Your task to perform on an android device: change keyboard looks Image 0: 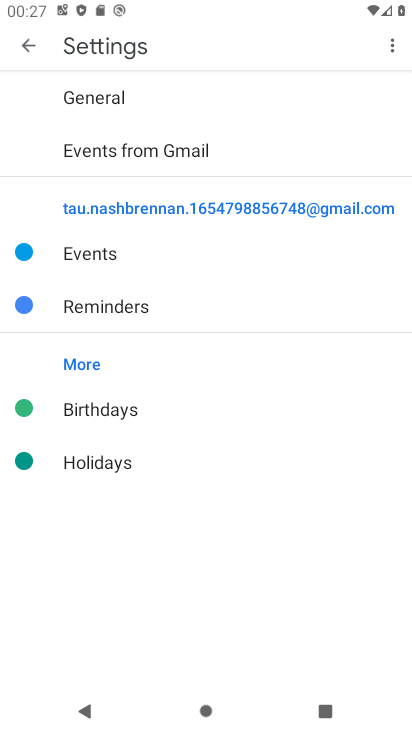
Step 0: press back button
Your task to perform on an android device: change keyboard looks Image 1: 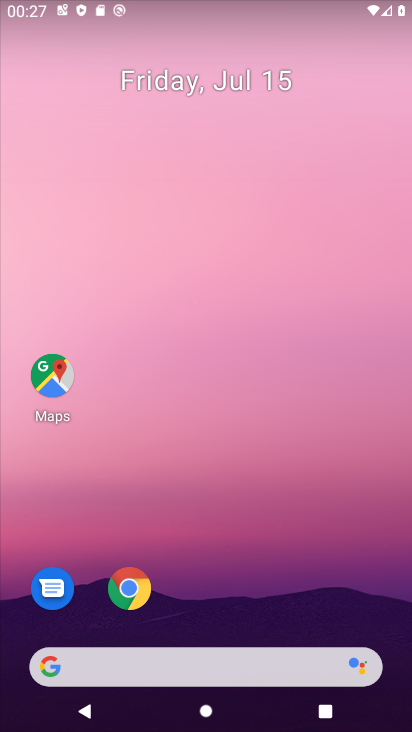
Step 1: drag from (273, 518) to (281, 3)
Your task to perform on an android device: change keyboard looks Image 2: 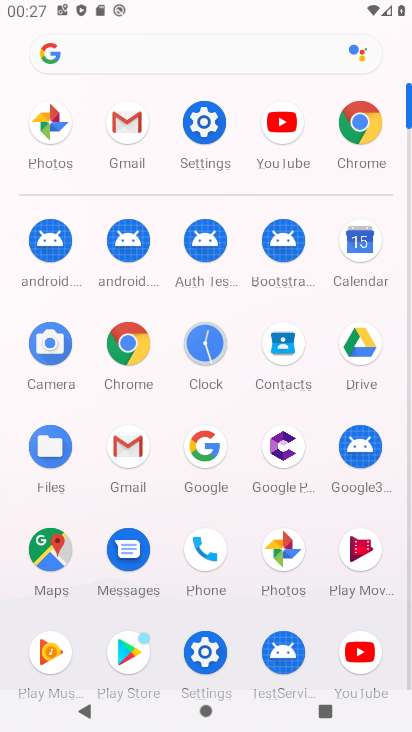
Step 2: click (198, 119)
Your task to perform on an android device: change keyboard looks Image 3: 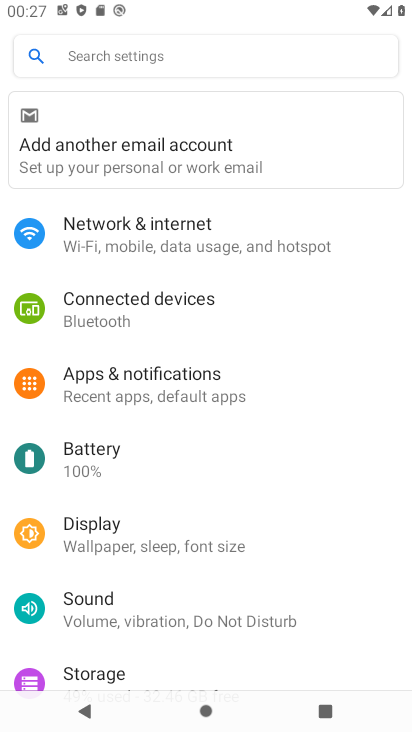
Step 3: click (149, 53)
Your task to perform on an android device: change keyboard looks Image 4: 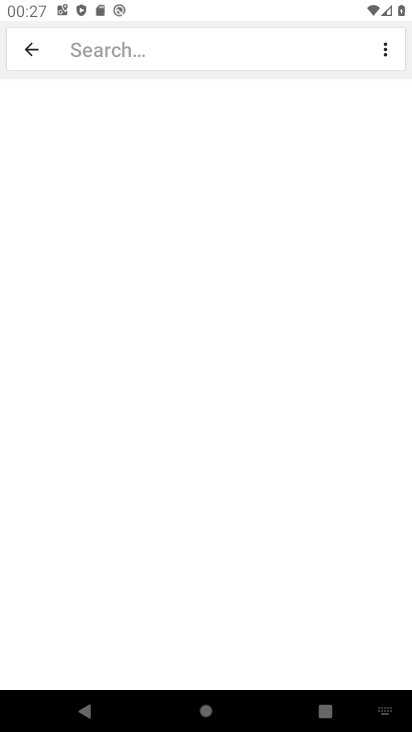
Step 4: click (30, 45)
Your task to perform on an android device: change keyboard looks Image 5: 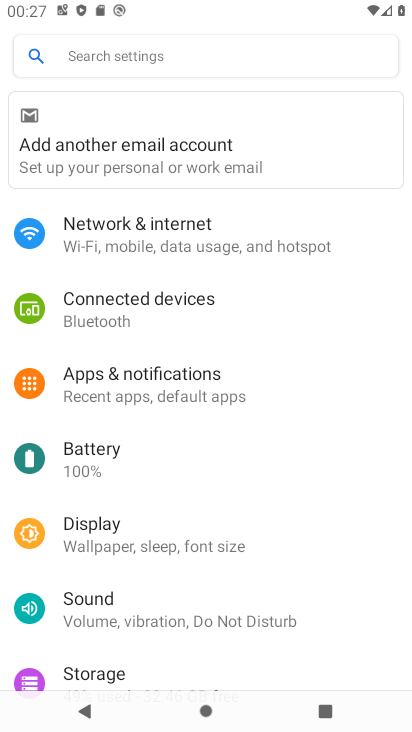
Step 5: drag from (149, 609) to (182, 6)
Your task to perform on an android device: change keyboard looks Image 6: 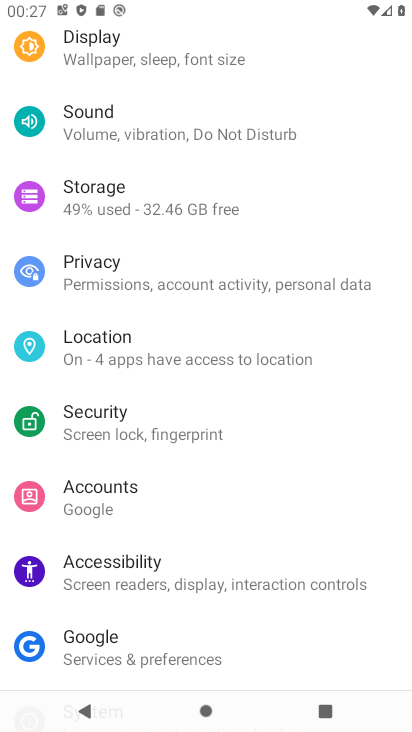
Step 6: drag from (158, 566) to (264, 26)
Your task to perform on an android device: change keyboard looks Image 7: 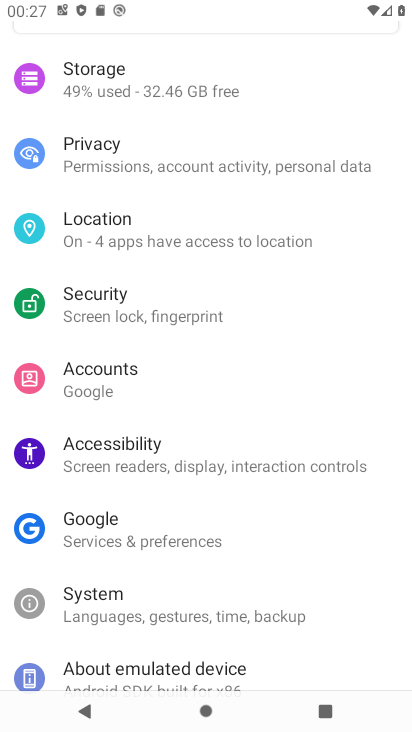
Step 7: click (105, 564)
Your task to perform on an android device: change keyboard looks Image 8: 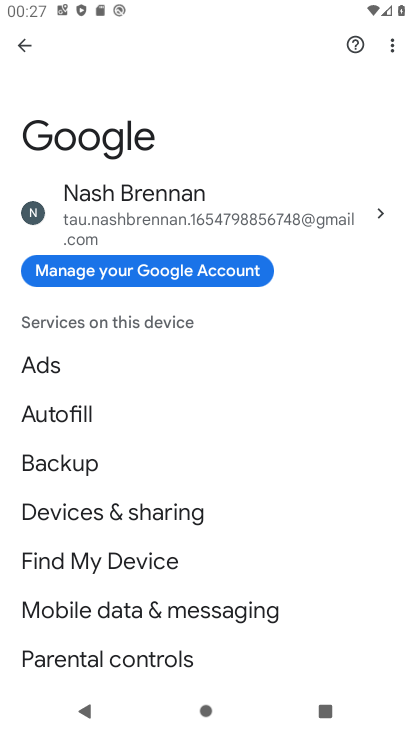
Step 8: click (22, 36)
Your task to perform on an android device: change keyboard looks Image 9: 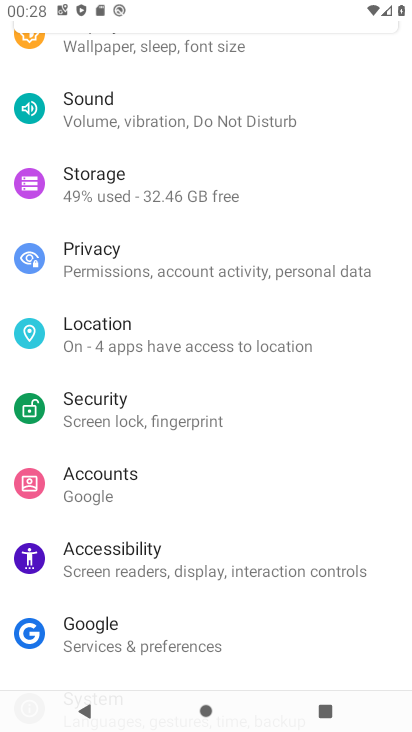
Step 9: drag from (134, 613) to (225, 26)
Your task to perform on an android device: change keyboard looks Image 10: 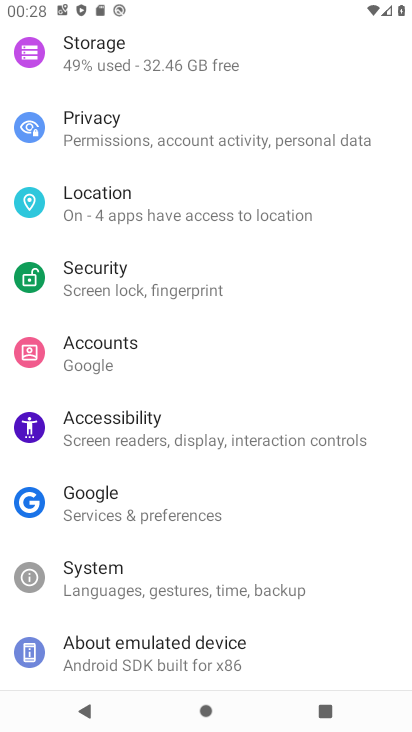
Step 10: click (138, 586)
Your task to perform on an android device: change keyboard looks Image 11: 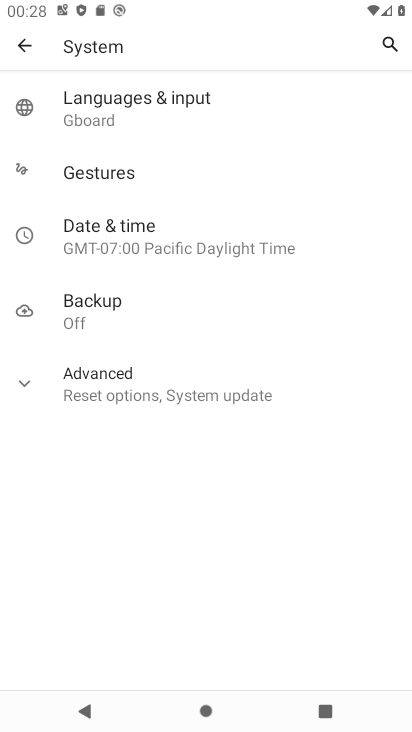
Step 11: click (132, 116)
Your task to perform on an android device: change keyboard looks Image 12: 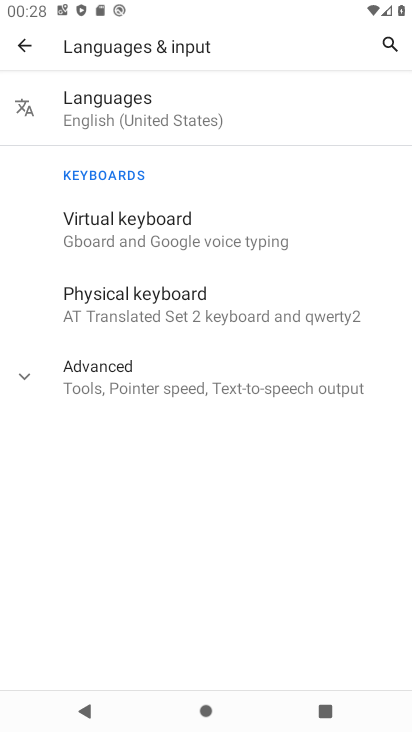
Step 12: click (116, 235)
Your task to perform on an android device: change keyboard looks Image 13: 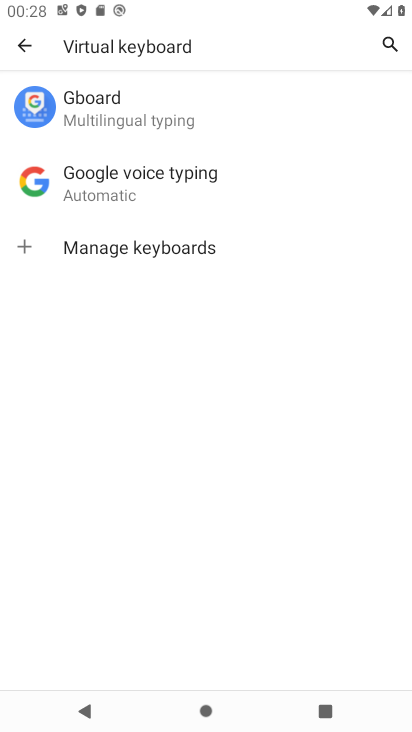
Step 13: click (116, 103)
Your task to perform on an android device: change keyboard looks Image 14: 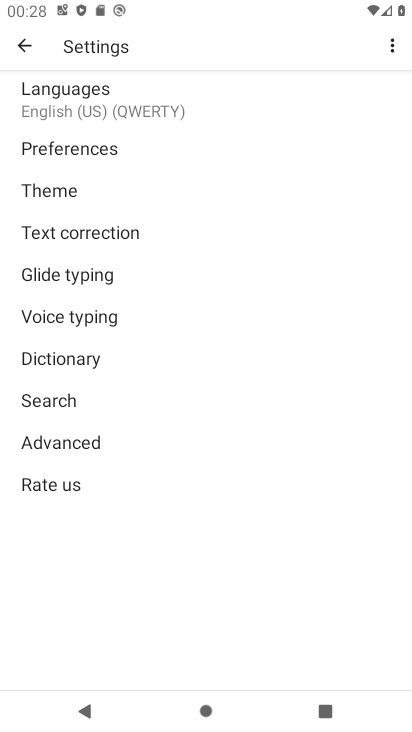
Step 14: click (71, 187)
Your task to perform on an android device: change keyboard looks Image 15: 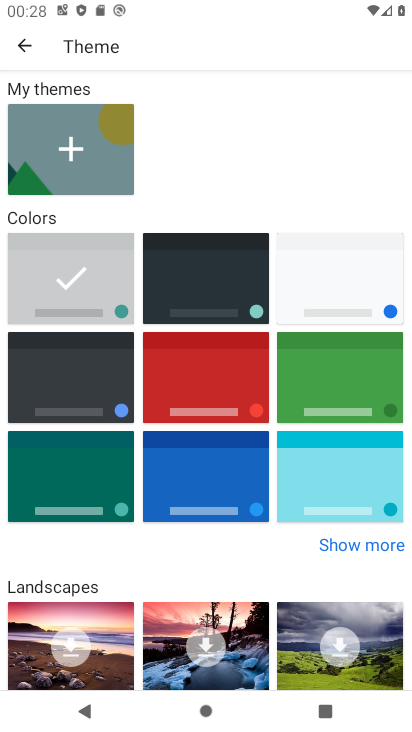
Step 15: click (203, 374)
Your task to perform on an android device: change keyboard looks Image 16: 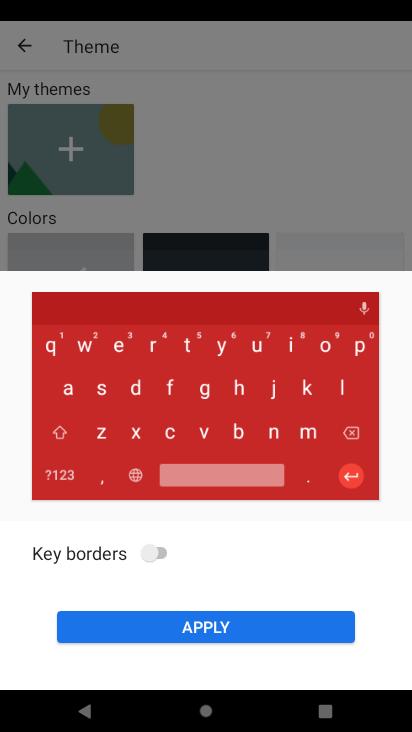
Step 16: click (186, 628)
Your task to perform on an android device: change keyboard looks Image 17: 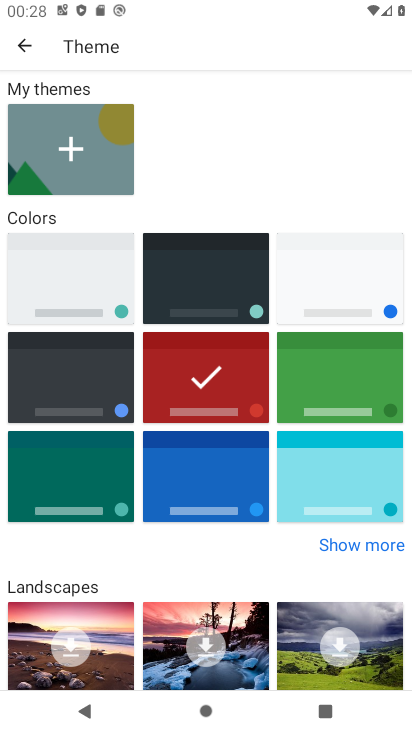
Step 17: task complete